Your task to perform on an android device: turn on javascript in the chrome app Image 0: 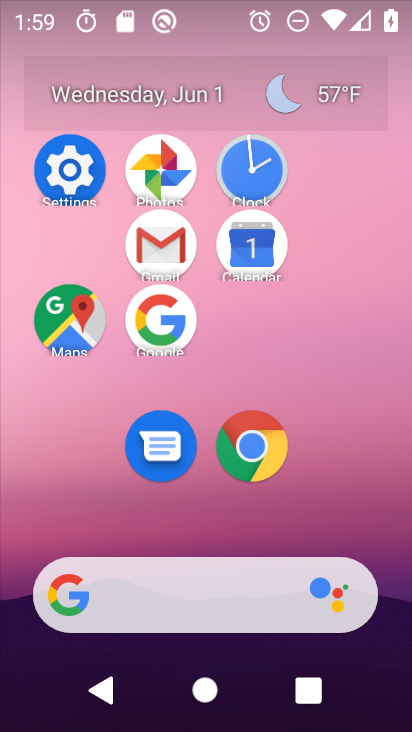
Step 0: click (274, 444)
Your task to perform on an android device: turn on javascript in the chrome app Image 1: 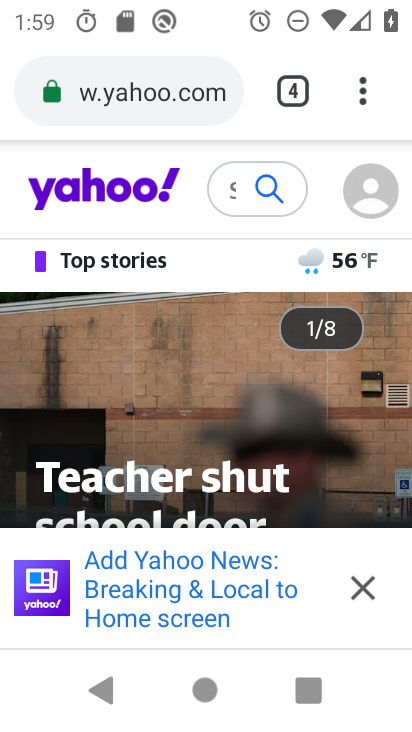
Step 1: click (363, 102)
Your task to perform on an android device: turn on javascript in the chrome app Image 2: 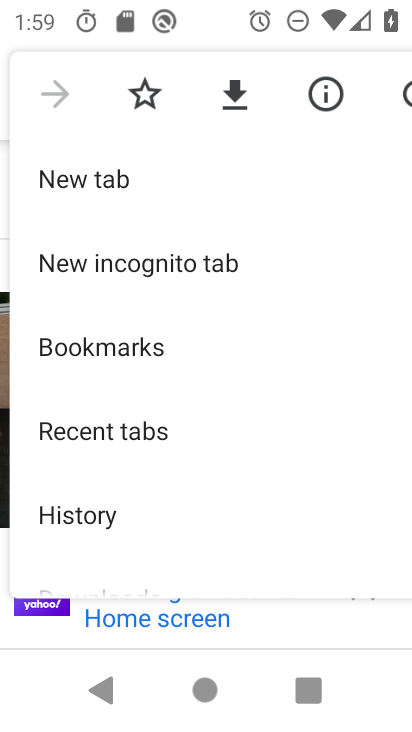
Step 2: drag from (117, 441) to (157, 136)
Your task to perform on an android device: turn on javascript in the chrome app Image 3: 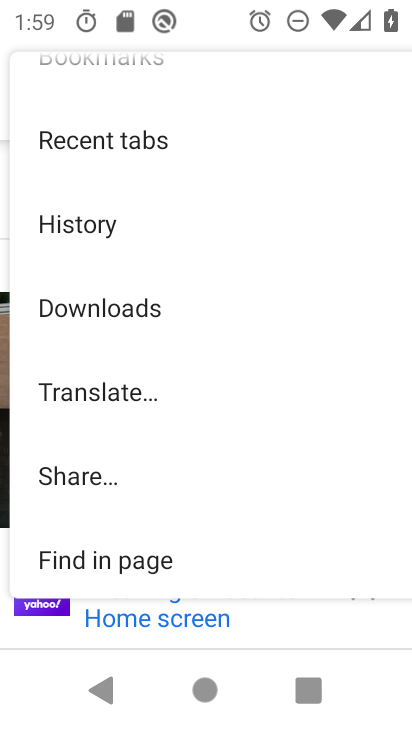
Step 3: drag from (169, 499) to (154, 167)
Your task to perform on an android device: turn on javascript in the chrome app Image 4: 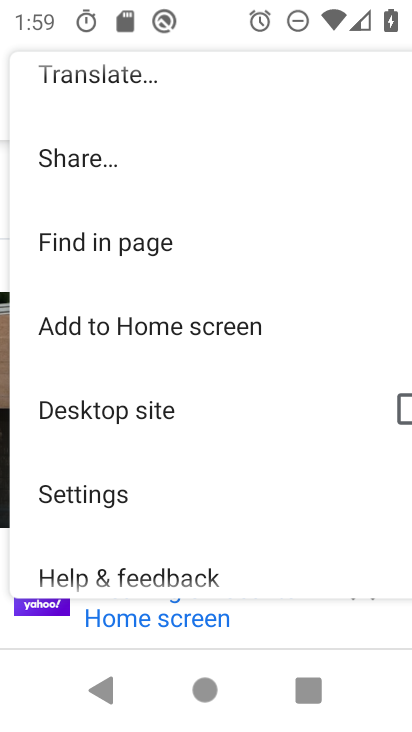
Step 4: click (184, 507)
Your task to perform on an android device: turn on javascript in the chrome app Image 5: 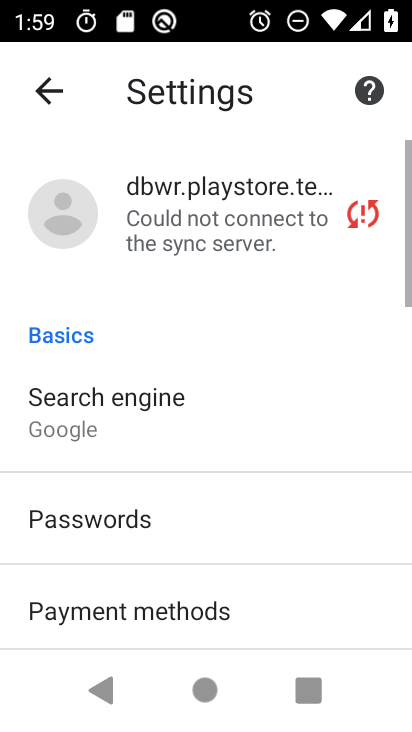
Step 5: drag from (181, 508) to (193, 198)
Your task to perform on an android device: turn on javascript in the chrome app Image 6: 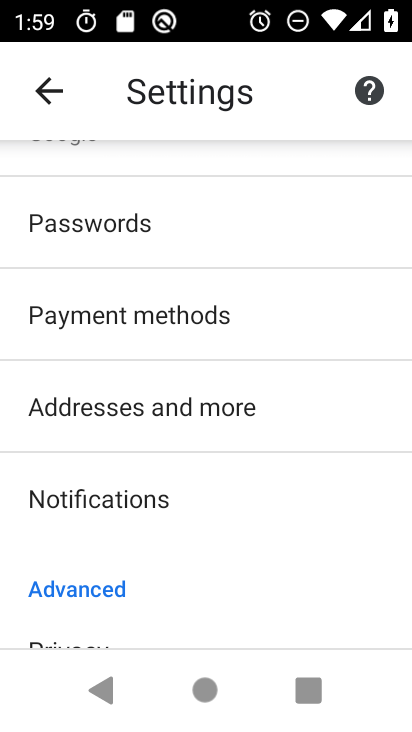
Step 6: drag from (196, 559) to (182, 199)
Your task to perform on an android device: turn on javascript in the chrome app Image 7: 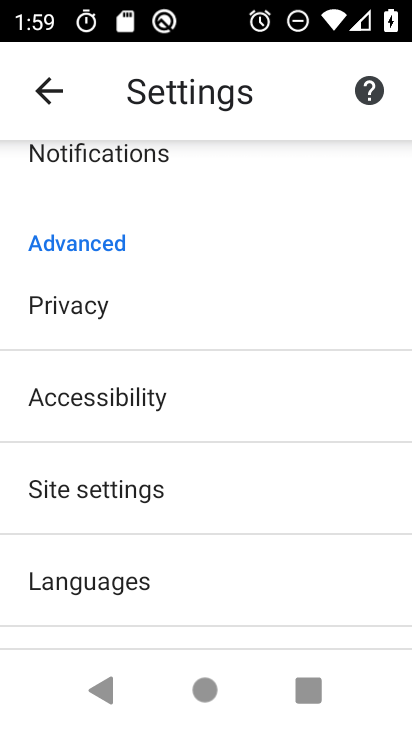
Step 7: drag from (233, 603) to (238, 304)
Your task to perform on an android device: turn on javascript in the chrome app Image 8: 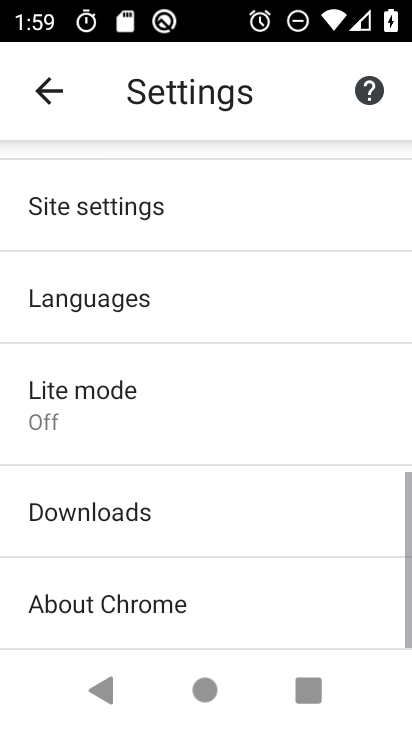
Step 8: click (219, 234)
Your task to perform on an android device: turn on javascript in the chrome app Image 9: 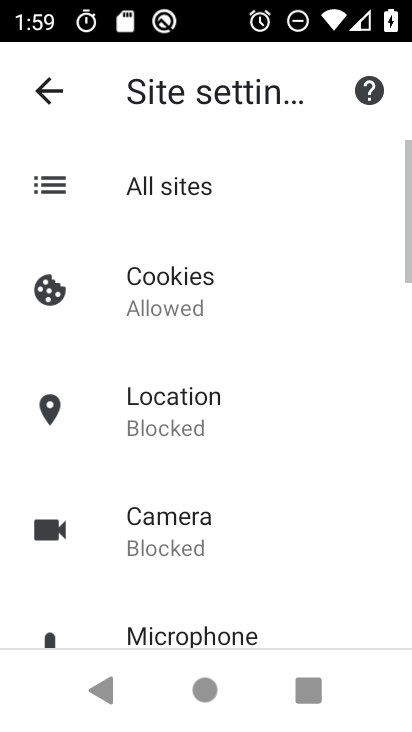
Step 9: drag from (268, 508) to (271, 189)
Your task to perform on an android device: turn on javascript in the chrome app Image 10: 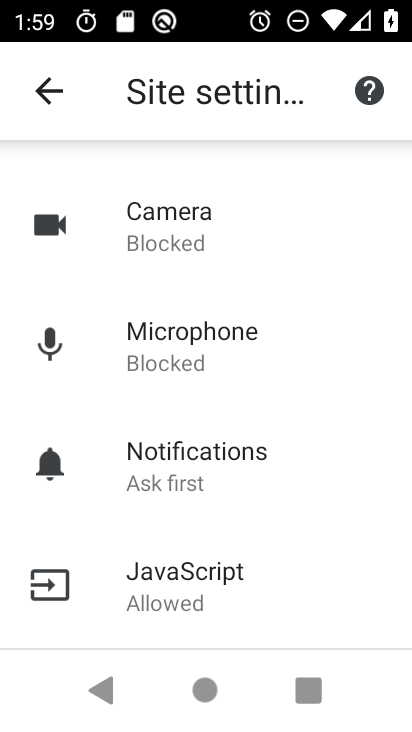
Step 10: click (208, 572)
Your task to perform on an android device: turn on javascript in the chrome app Image 11: 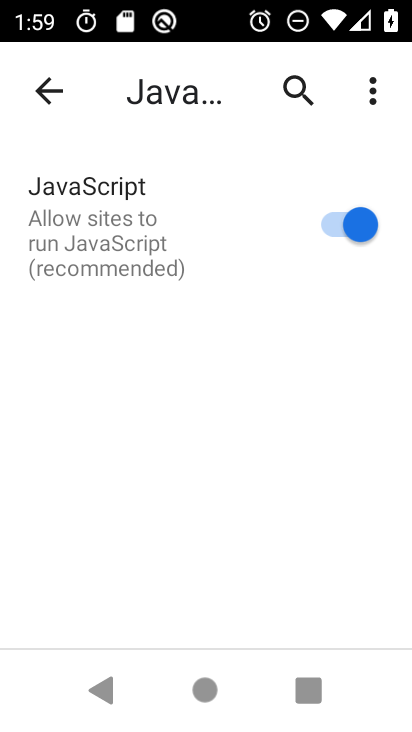
Step 11: task complete